Your task to perform on an android device: turn off translation in the chrome app Image 0: 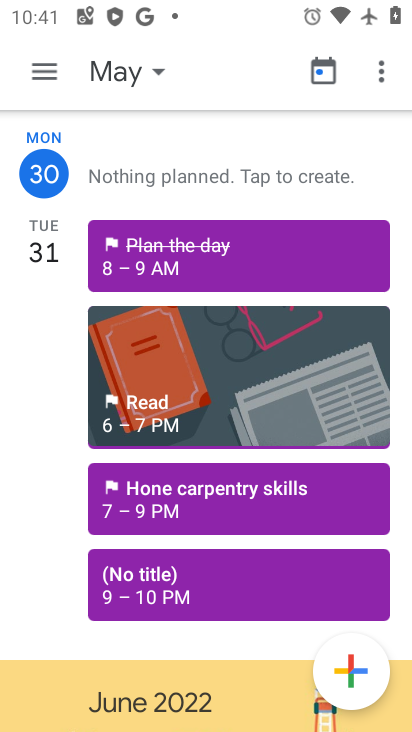
Step 0: press home button
Your task to perform on an android device: turn off translation in the chrome app Image 1: 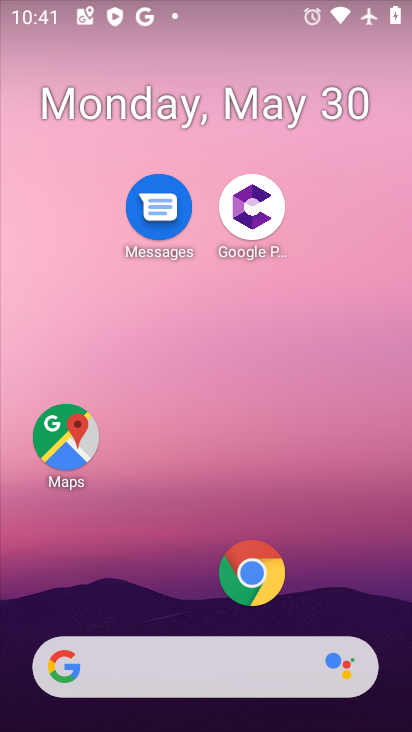
Step 1: click (258, 594)
Your task to perform on an android device: turn off translation in the chrome app Image 2: 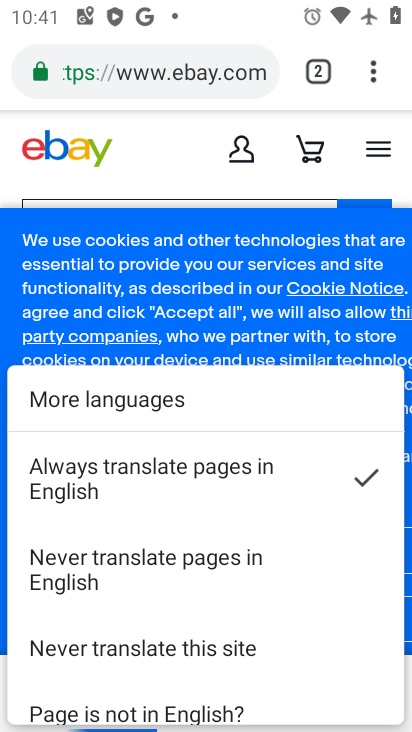
Step 2: click (381, 84)
Your task to perform on an android device: turn off translation in the chrome app Image 3: 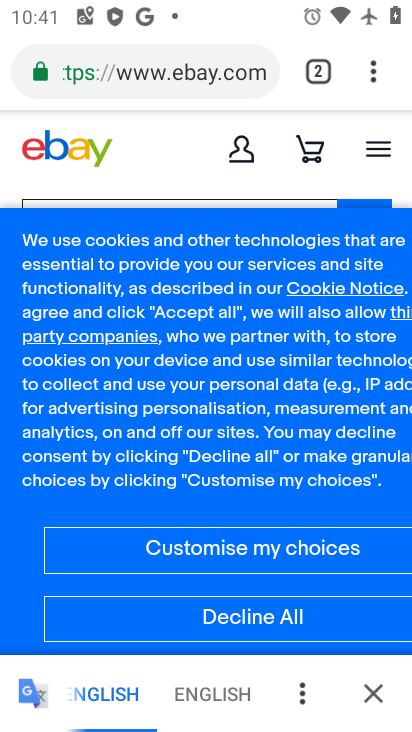
Step 3: click (373, 82)
Your task to perform on an android device: turn off translation in the chrome app Image 4: 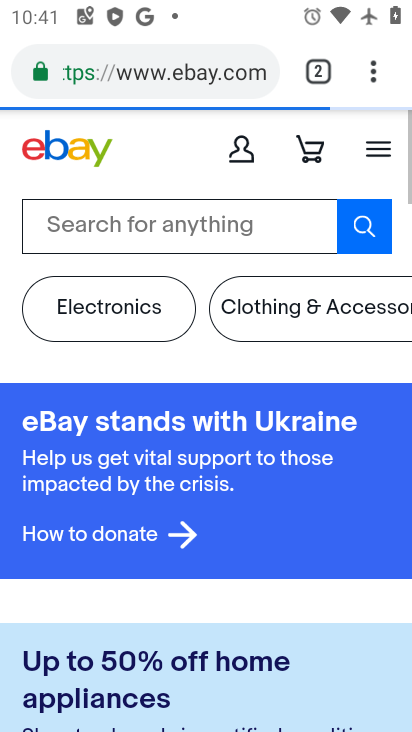
Step 4: click (373, 82)
Your task to perform on an android device: turn off translation in the chrome app Image 5: 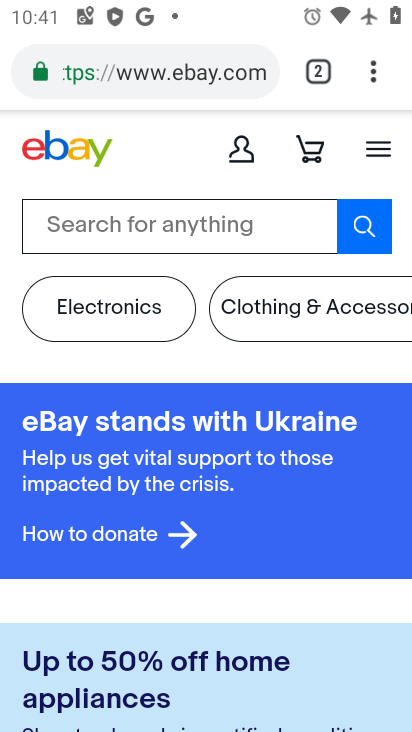
Step 5: click (376, 68)
Your task to perform on an android device: turn off translation in the chrome app Image 6: 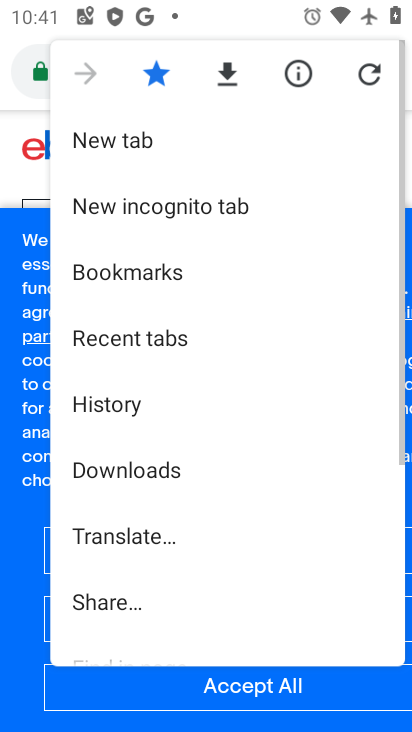
Step 6: drag from (168, 504) to (288, 173)
Your task to perform on an android device: turn off translation in the chrome app Image 7: 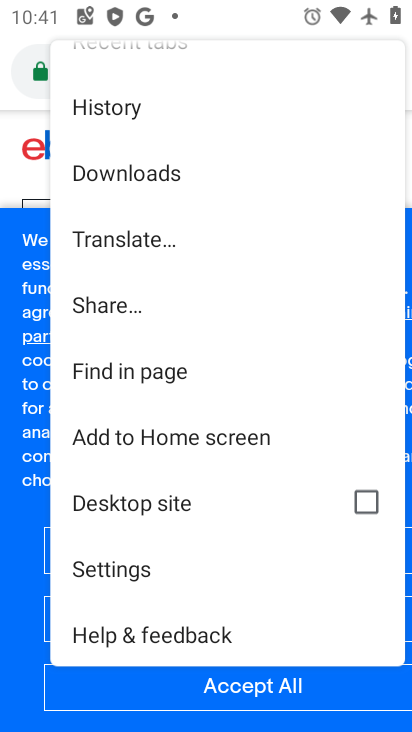
Step 7: click (150, 241)
Your task to perform on an android device: turn off translation in the chrome app Image 8: 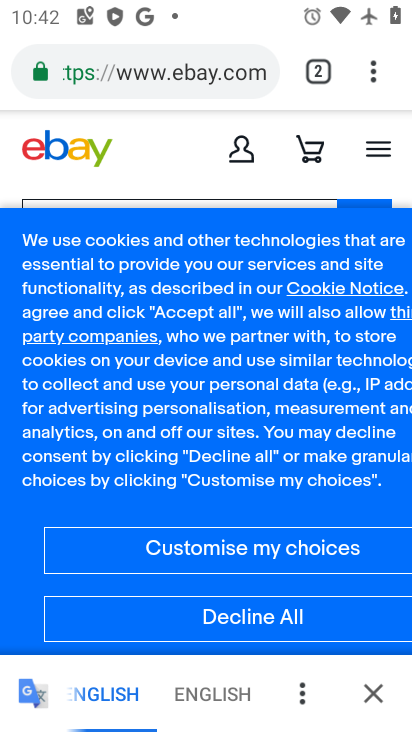
Step 8: click (300, 701)
Your task to perform on an android device: turn off translation in the chrome app Image 9: 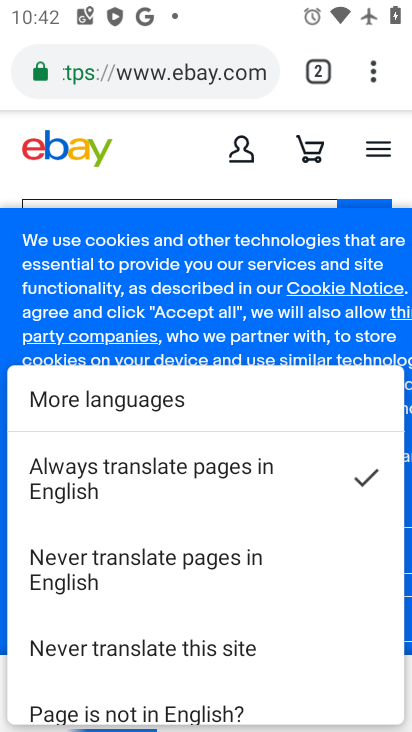
Step 9: click (153, 651)
Your task to perform on an android device: turn off translation in the chrome app Image 10: 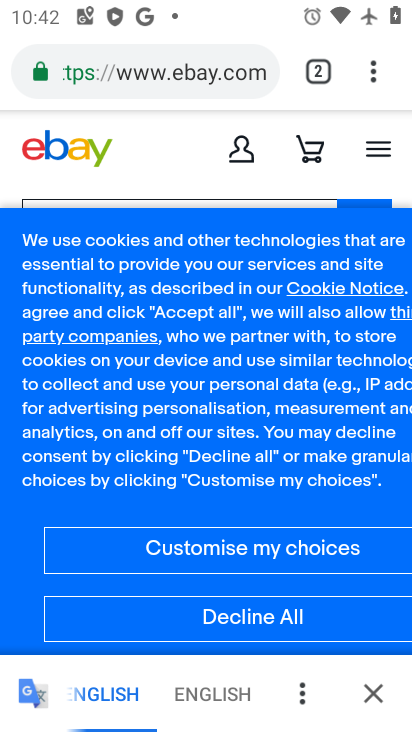
Step 10: task complete